Your task to perform on an android device: Search for the best rated 2021 Samsung Galaxy S21 Ultra on AliExpress Image 0: 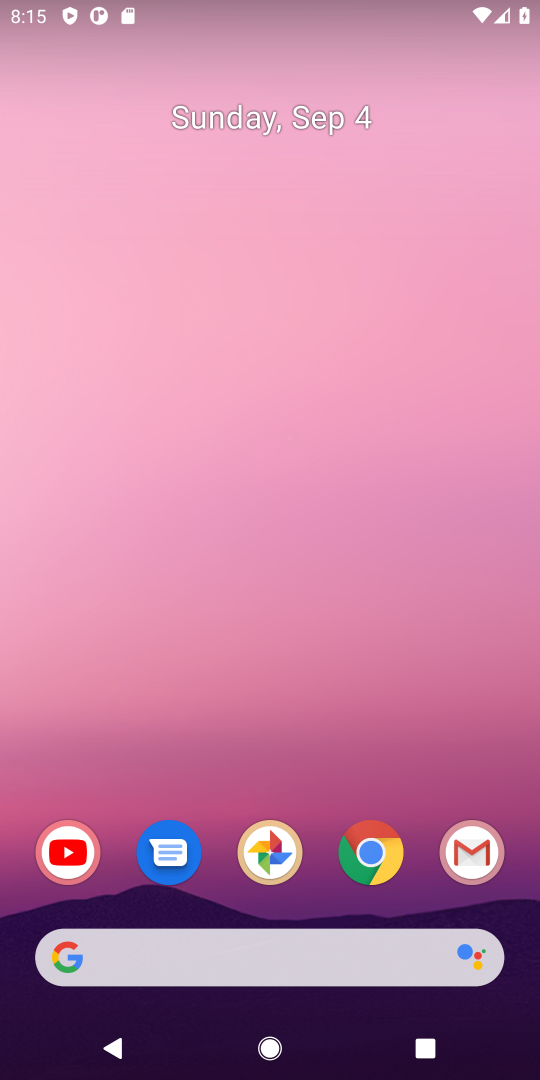
Step 0: drag from (423, 806) to (173, 19)
Your task to perform on an android device: Search for the best rated 2021 Samsung Galaxy S21 Ultra on AliExpress Image 1: 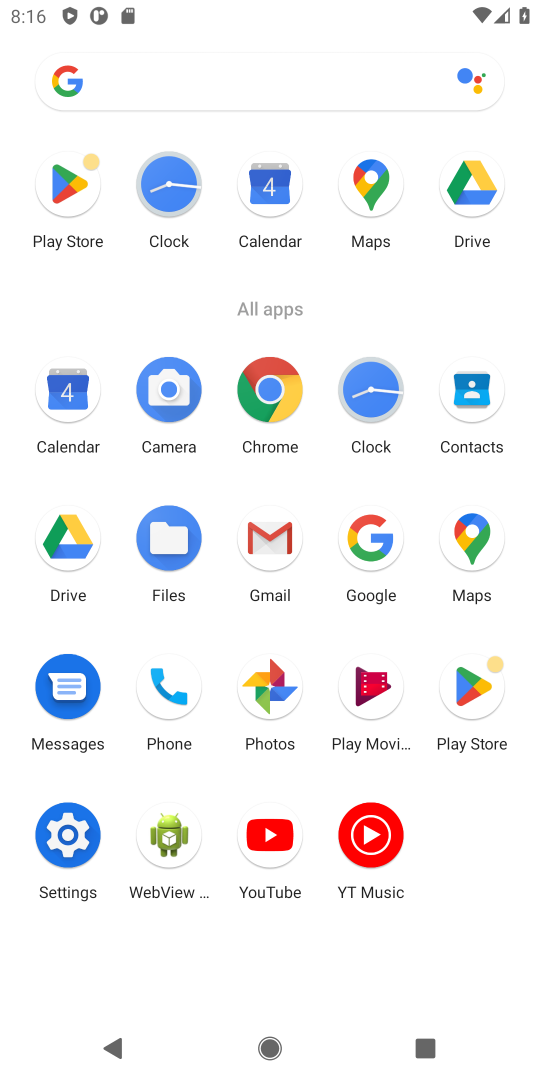
Step 1: click (362, 556)
Your task to perform on an android device: Search for the best rated 2021 Samsung Galaxy S21 Ultra on AliExpress Image 2: 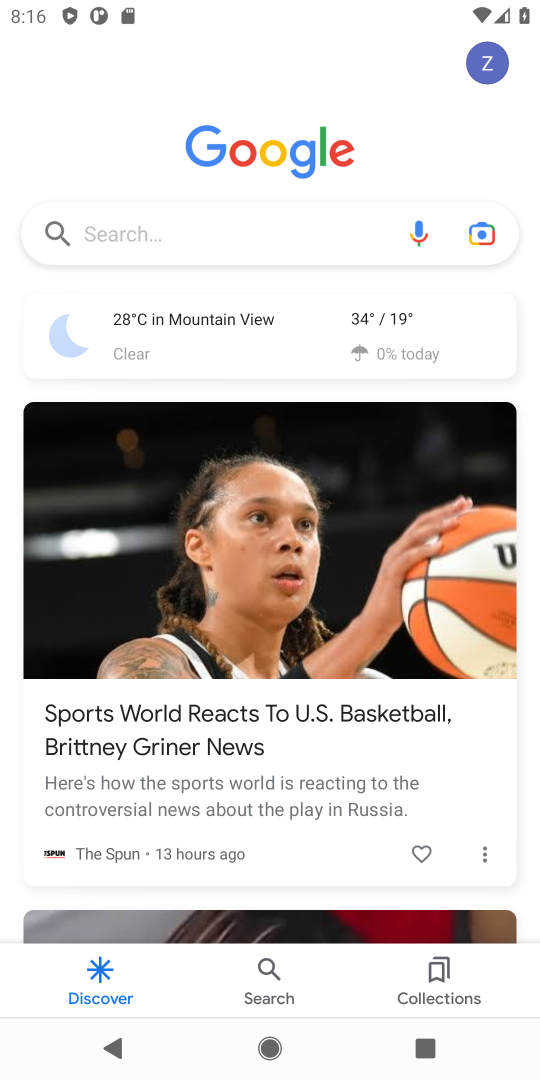
Step 2: click (151, 229)
Your task to perform on an android device: Search for the best rated 2021 Samsung Galaxy S21 Ultra on AliExpress Image 3: 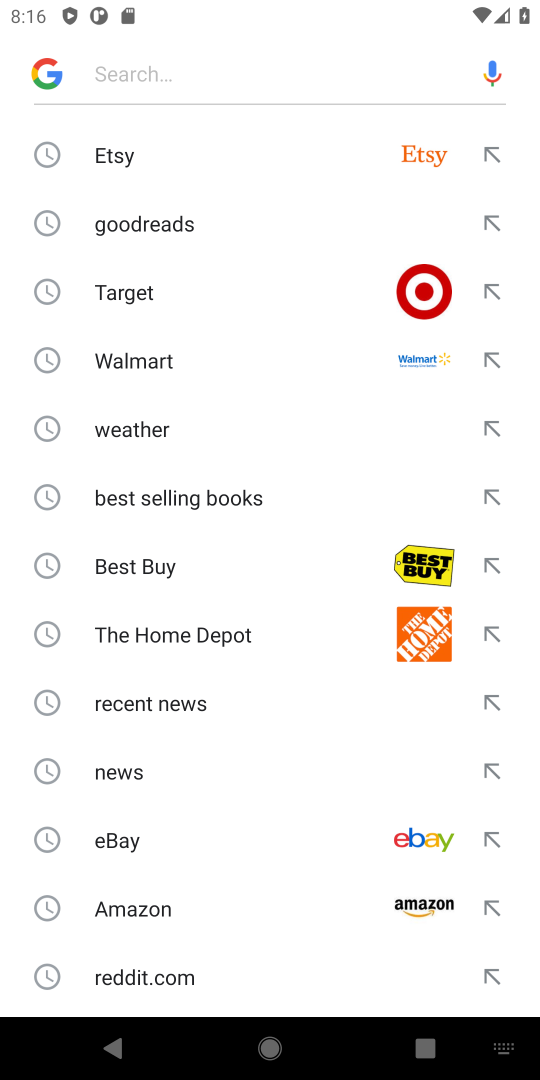
Step 3: type "AliExpress"
Your task to perform on an android device: Search for the best rated 2021 Samsung Galaxy S21 Ultra on AliExpress Image 4: 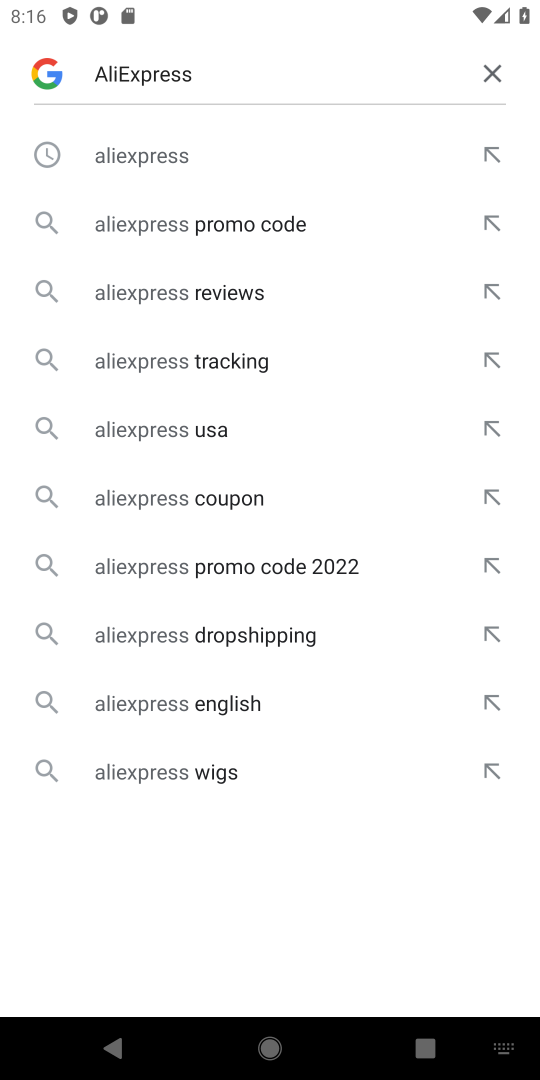
Step 4: click (157, 157)
Your task to perform on an android device: Search for the best rated 2021 Samsung Galaxy S21 Ultra on AliExpress Image 5: 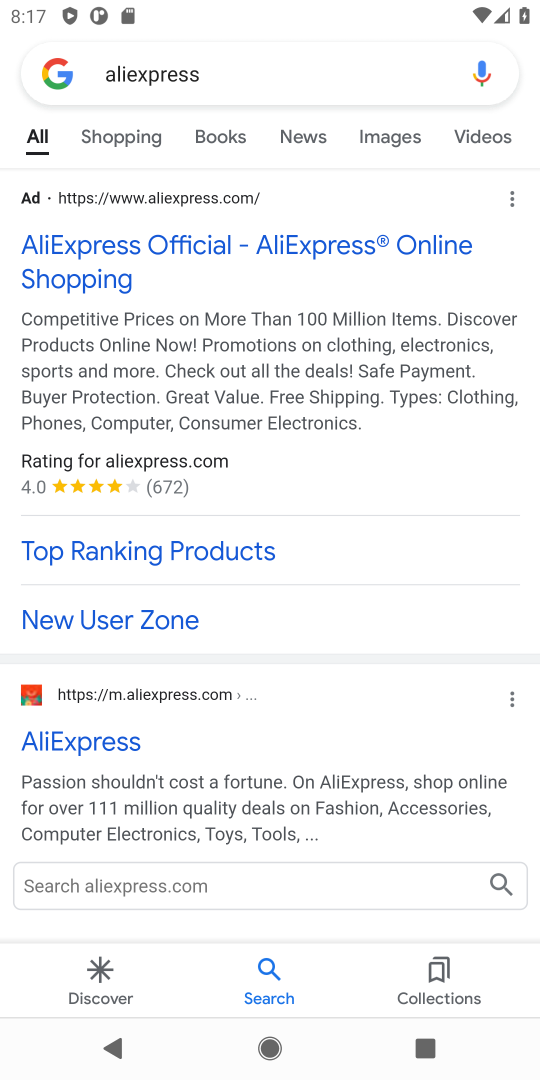
Step 5: click (116, 273)
Your task to perform on an android device: Search for the best rated 2021 Samsung Galaxy S21 Ultra on AliExpress Image 6: 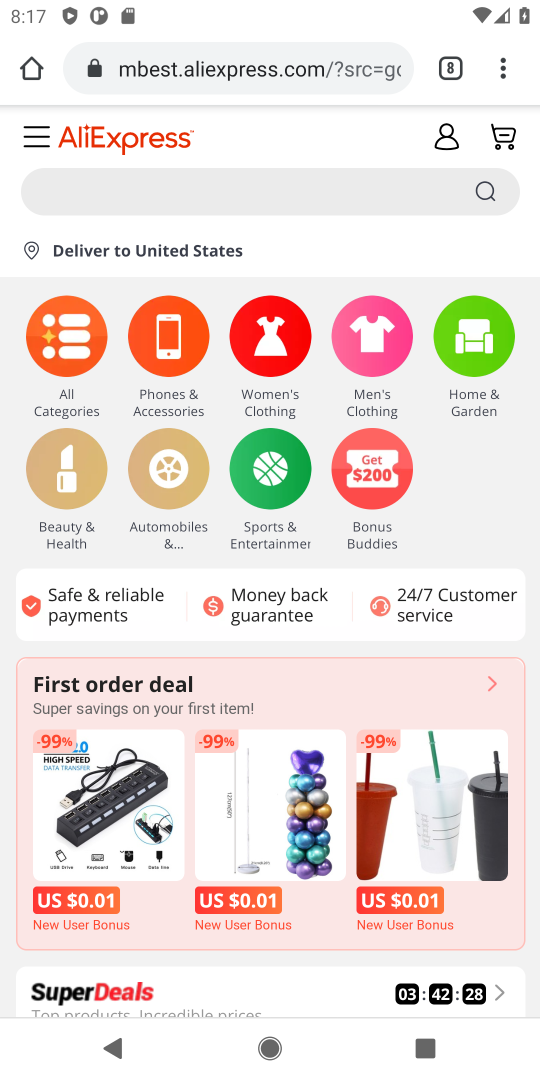
Step 6: click (186, 197)
Your task to perform on an android device: Search for the best rated 2021 Samsung Galaxy S21 Ultra on AliExpress Image 7: 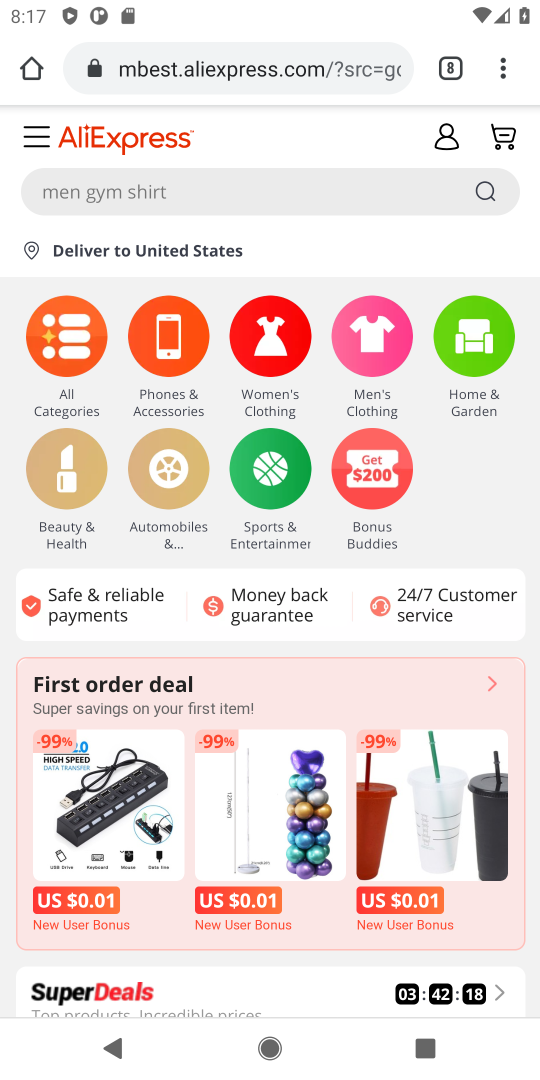
Step 7: click (179, 192)
Your task to perform on an android device: Search for the best rated 2021 Samsung Galaxy S21 Ultra on AliExpress Image 8: 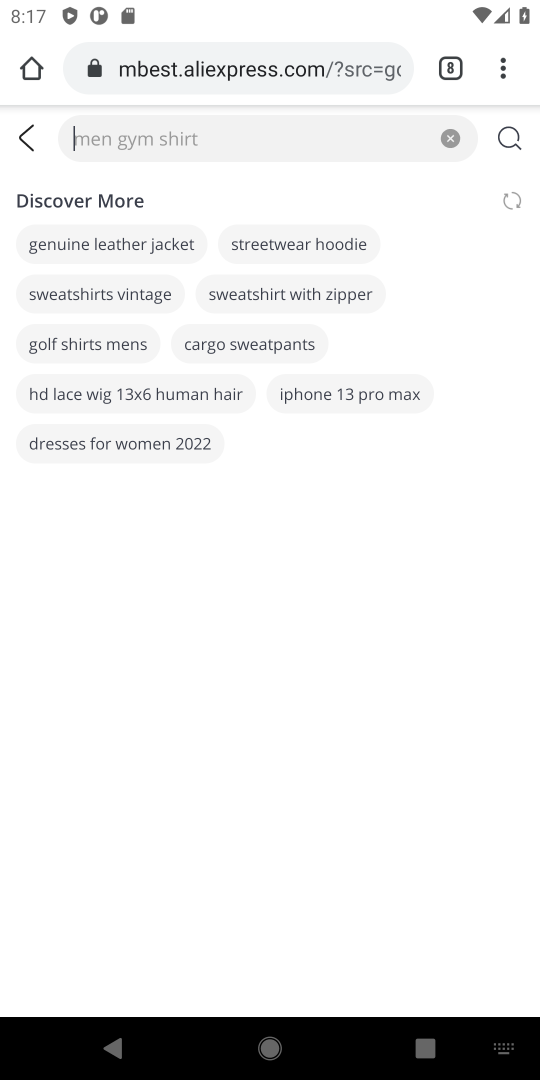
Step 8: type " 2021 Samsung Galaxy S21 Ultra "
Your task to perform on an android device: Search for the best rated 2021 Samsung Galaxy S21 Ultra on AliExpress Image 9: 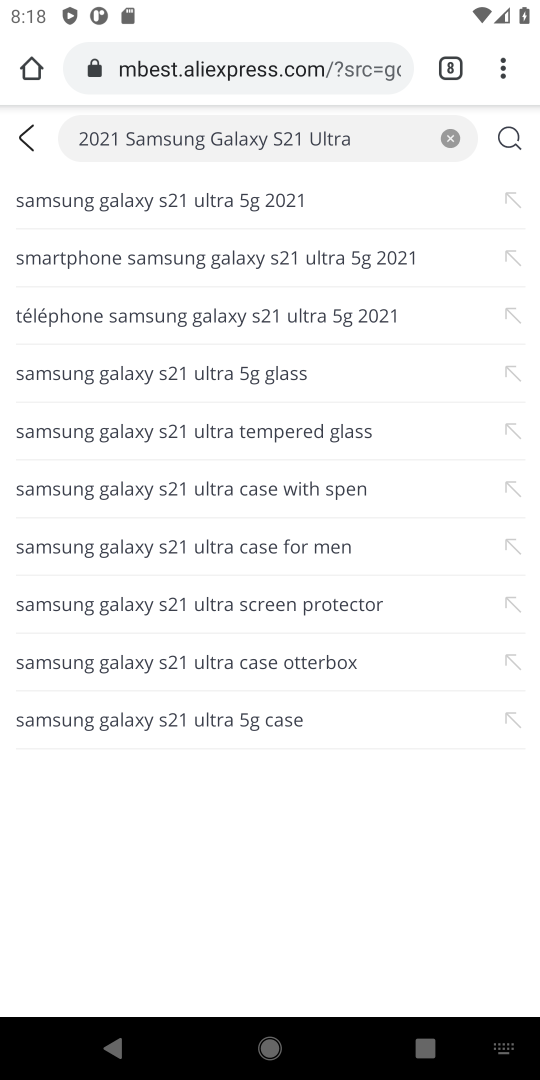
Step 9: click (516, 140)
Your task to perform on an android device: Search for the best rated 2021 Samsung Galaxy S21 Ultra on AliExpress Image 10: 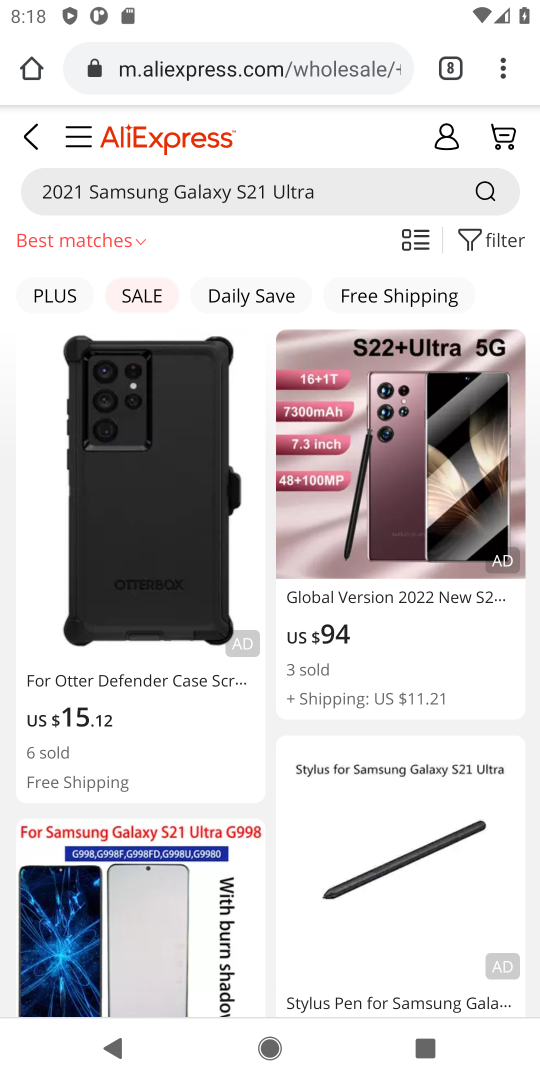
Step 10: task complete